Your task to perform on an android device: Clear all items from cart on target.com. Search for "usb-b" on target.com, select the first entry, and add it to the cart. Image 0: 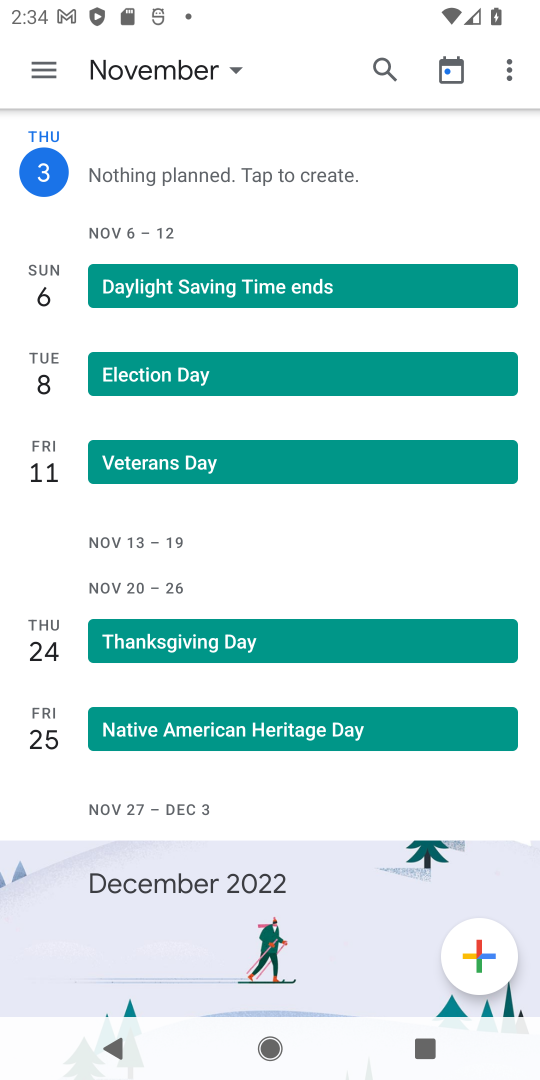
Step 0: press home button
Your task to perform on an android device: Clear all items from cart on target.com. Search for "usb-b" on target.com, select the first entry, and add it to the cart. Image 1: 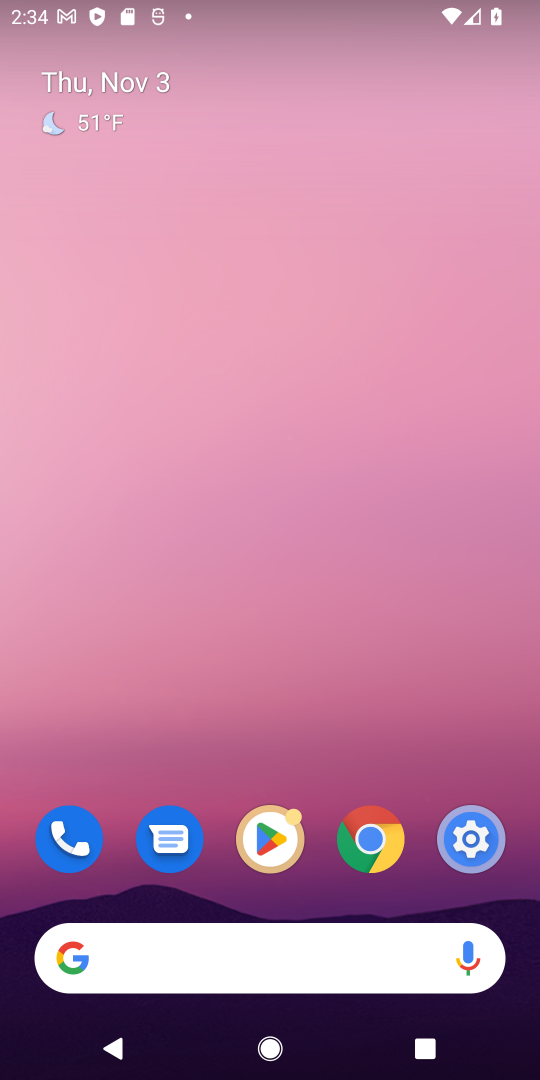
Step 1: click (369, 955)
Your task to perform on an android device: Clear all items from cart on target.com. Search for "usb-b" on target.com, select the first entry, and add it to the cart. Image 2: 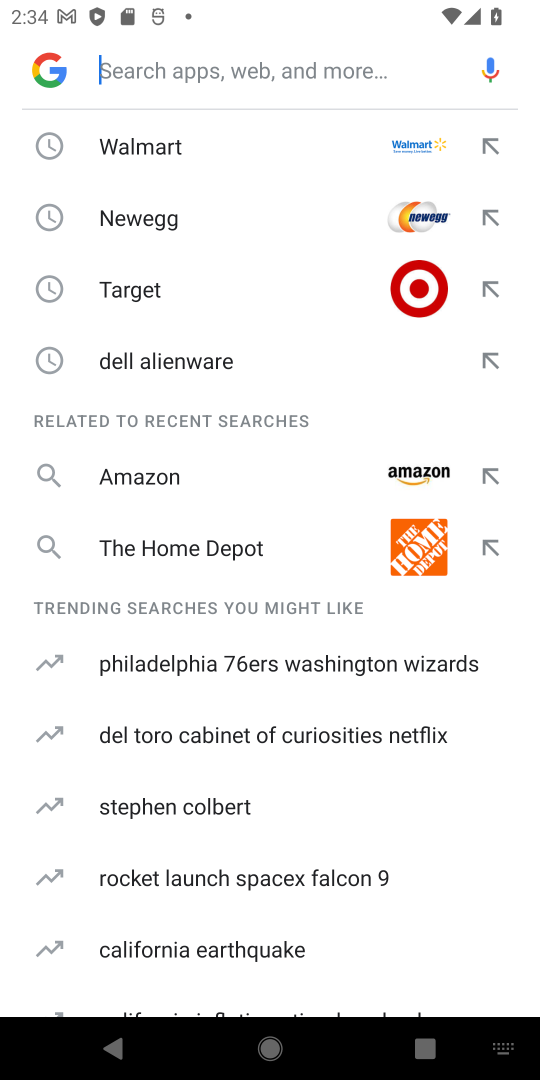
Step 2: click (173, 287)
Your task to perform on an android device: Clear all items from cart on target.com. Search for "usb-b" on target.com, select the first entry, and add it to the cart. Image 3: 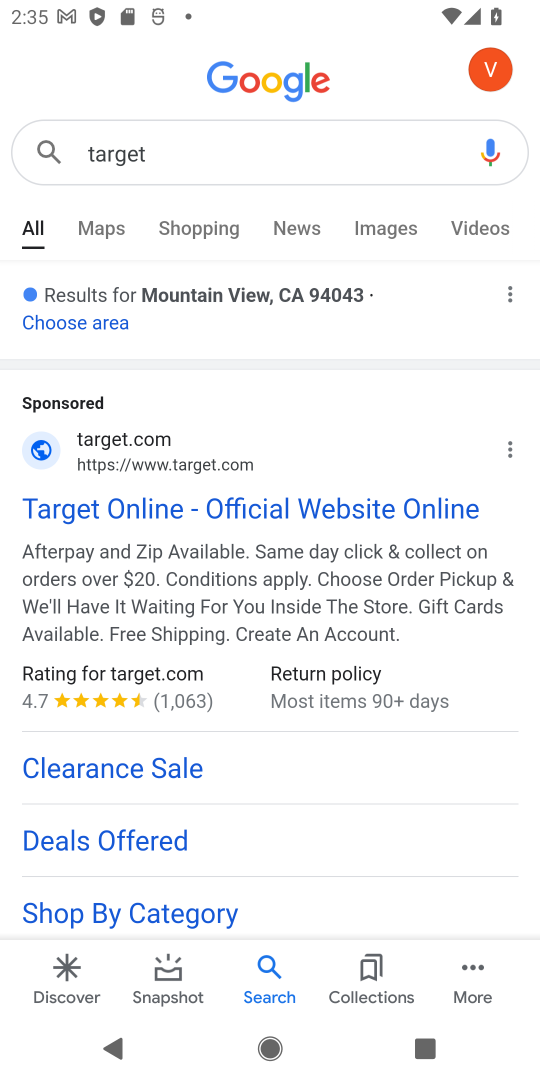
Step 3: click (135, 519)
Your task to perform on an android device: Clear all items from cart on target.com. Search for "usb-b" on target.com, select the first entry, and add it to the cart. Image 4: 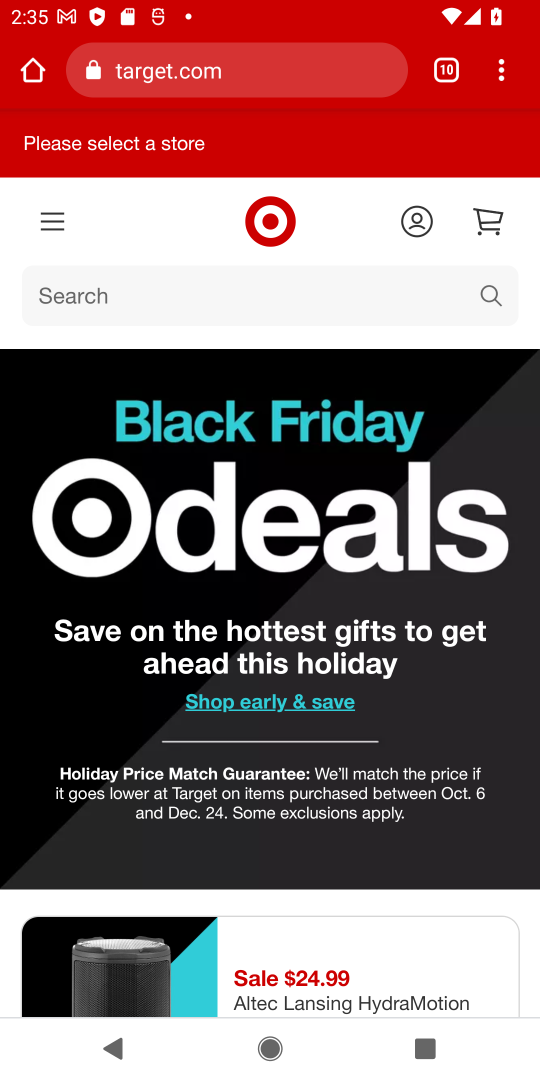
Step 4: click (387, 309)
Your task to perform on an android device: Clear all items from cart on target.com. Search for "usb-b" on target.com, select the first entry, and add it to the cart. Image 5: 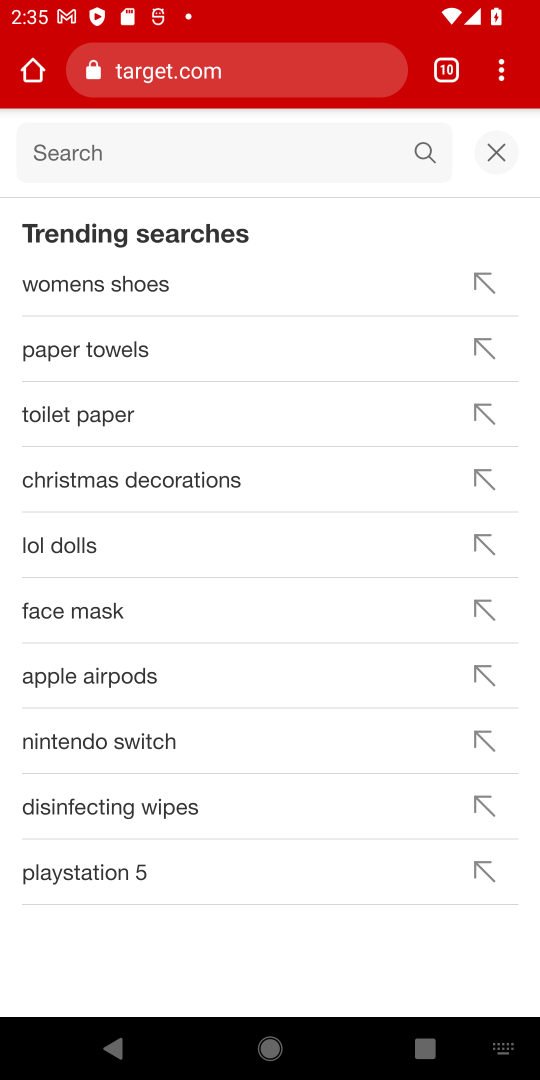
Step 5: type "usb-b"
Your task to perform on an android device: Clear all items from cart on target.com. Search for "usb-b" on target.com, select the first entry, and add it to the cart. Image 6: 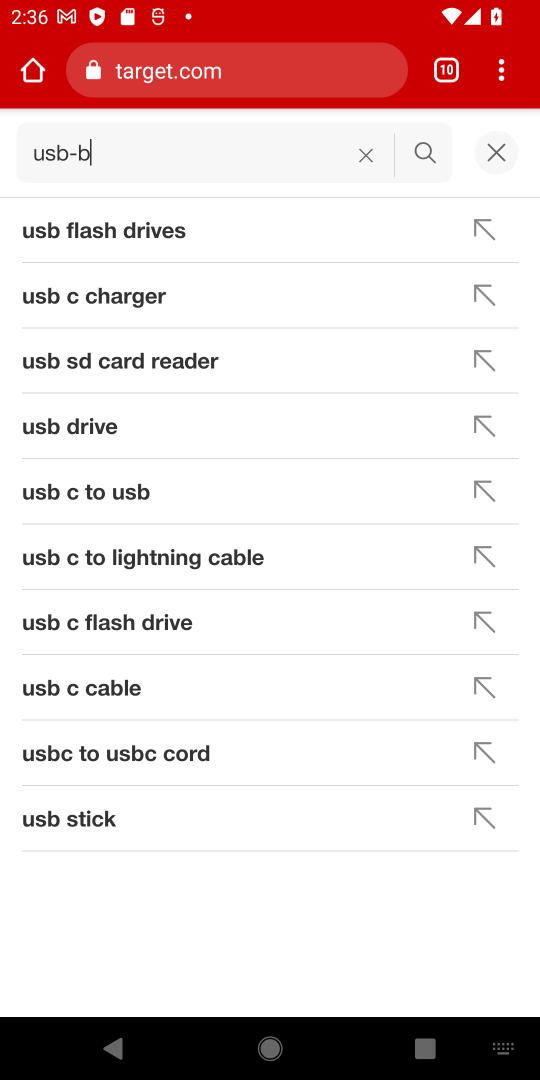
Step 6: click (403, 141)
Your task to perform on an android device: Clear all items from cart on target.com. Search for "usb-b" on target.com, select the first entry, and add it to the cart. Image 7: 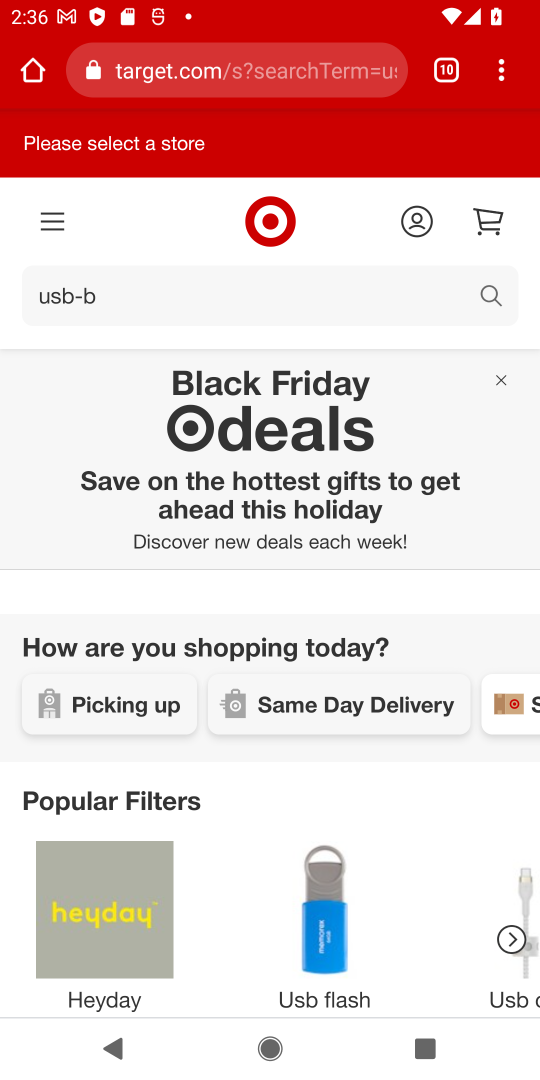
Step 7: drag from (271, 880) to (293, 104)
Your task to perform on an android device: Clear all items from cart on target.com. Search for "usb-b" on target.com, select the first entry, and add it to the cart. Image 8: 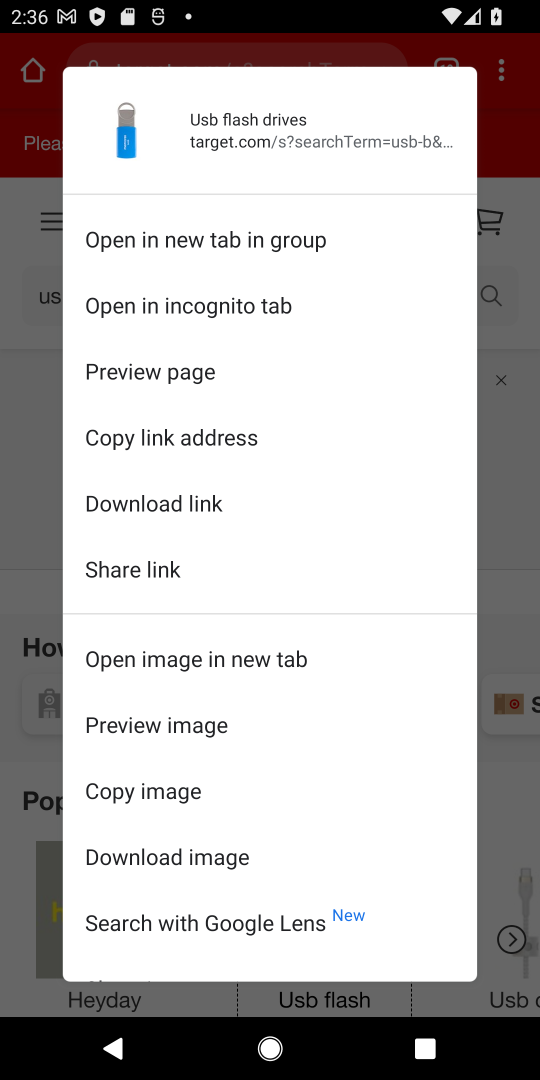
Step 8: click (506, 536)
Your task to perform on an android device: Clear all items from cart on target.com. Search for "usb-b" on target.com, select the first entry, and add it to the cart. Image 9: 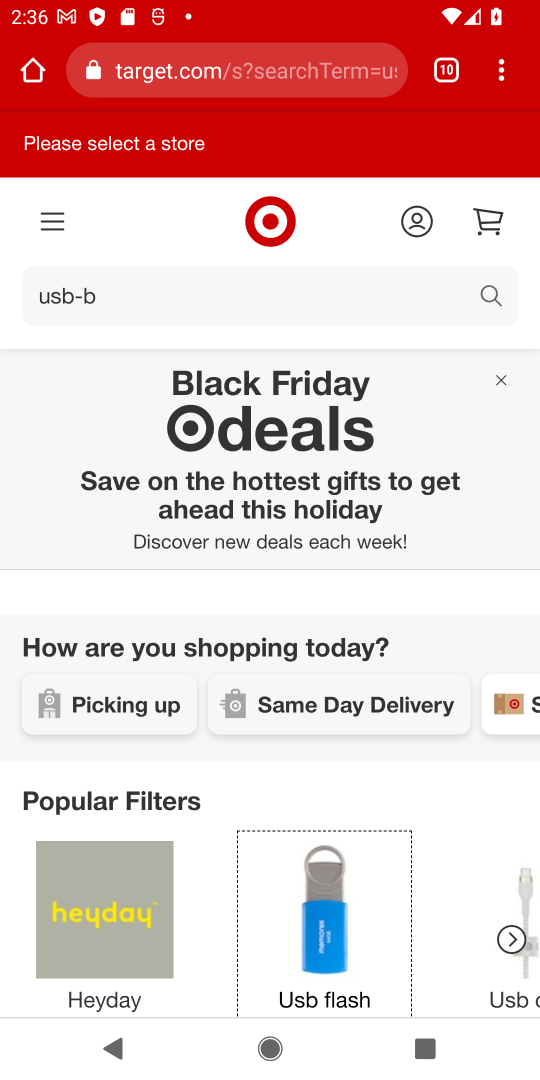
Step 9: task complete